Your task to perform on an android device: Is it going to rain tomorrow? Image 0: 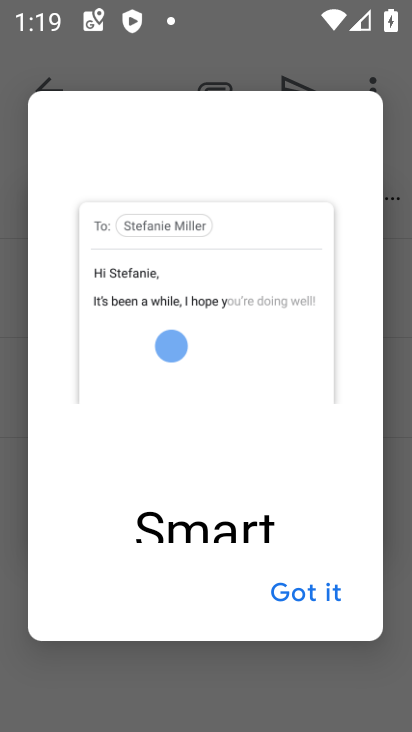
Step 0: press home button
Your task to perform on an android device: Is it going to rain tomorrow? Image 1: 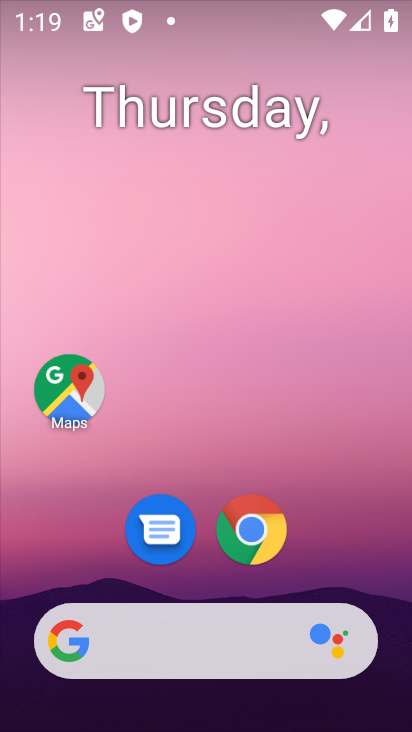
Step 1: drag from (368, 533) to (374, 93)
Your task to perform on an android device: Is it going to rain tomorrow? Image 2: 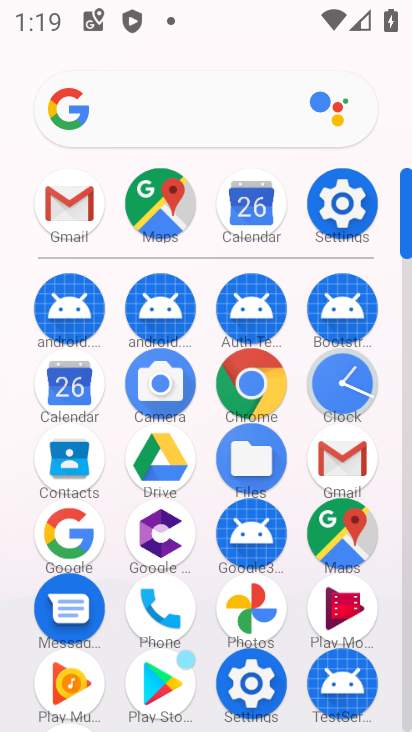
Step 2: click (260, 375)
Your task to perform on an android device: Is it going to rain tomorrow? Image 3: 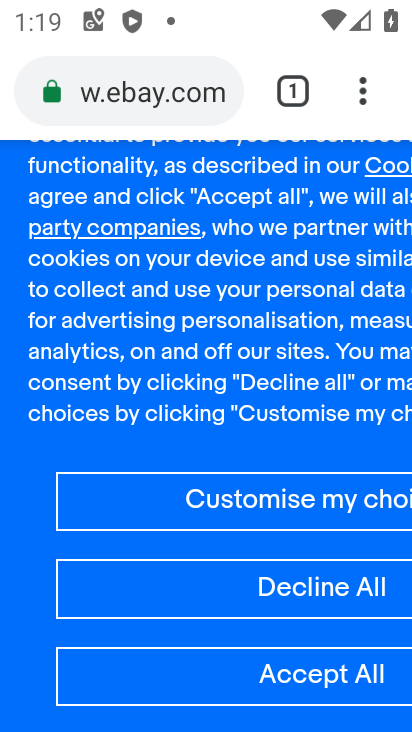
Step 3: click (183, 72)
Your task to perform on an android device: Is it going to rain tomorrow? Image 4: 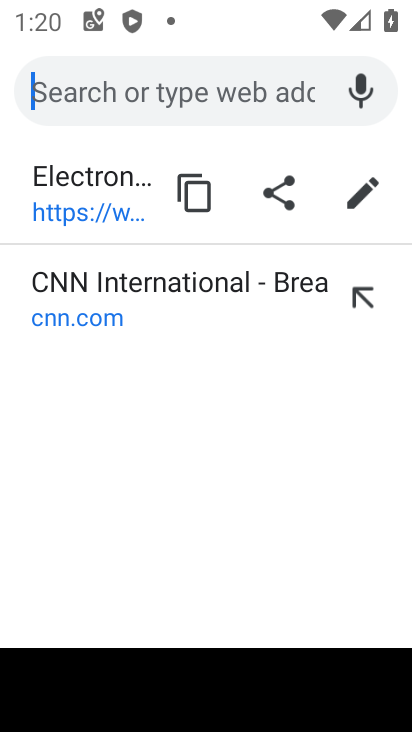
Step 4: type "is it going to rain tomorrow"
Your task to perform on an android device: Is it going to rain tomorrow? Image 5: 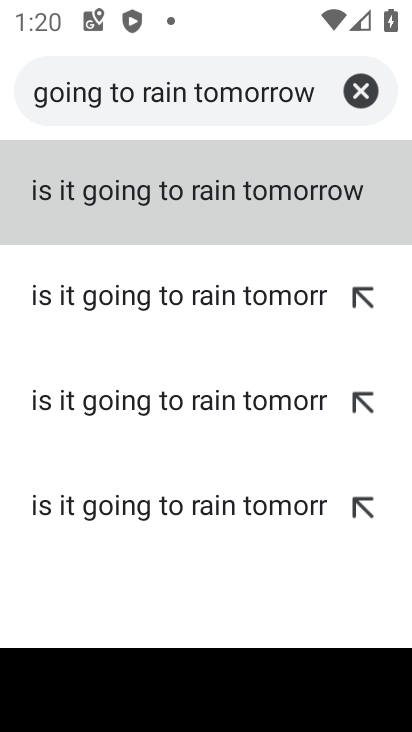
Step 5: click (88, 217)
Your task to perform on an android device: Is it going to rain tomorrow? Image 6: 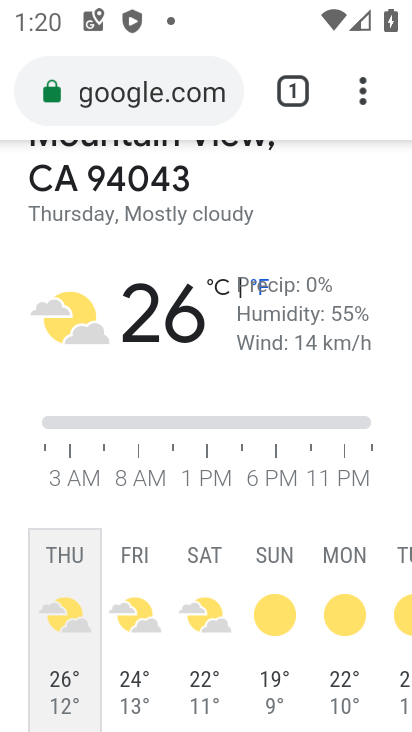
Step 6: task complete